Your task to perform on an android device: Clear all items from cart on amazon. Add logitech g pro to the cart on amazon, then select checkout. Image 0: 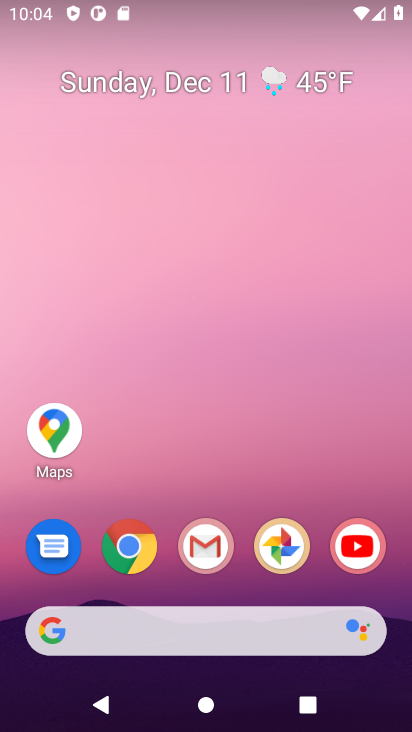
Step 0: click (132, 552)
Your task to perform on an android device: Clear all items from cart on amazon. Add logitech g pro to the cart on amazon, then select checkout. Image 1: 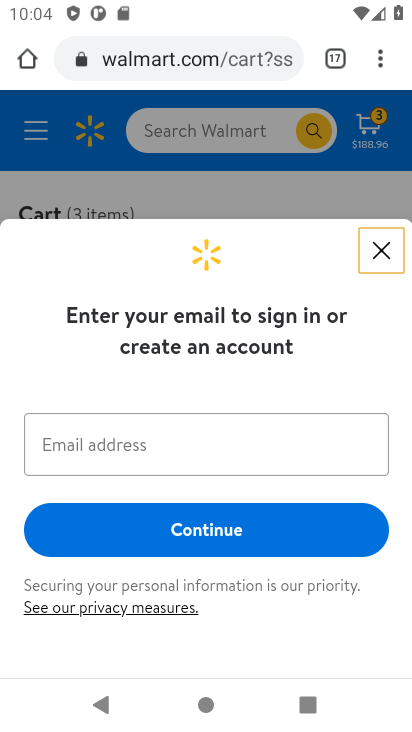
Step 1: click (148, 52)
Your task to perform on an android device: Clear all items from cart on amazon. Add logitech g pro to the cart on amazon, then select checkout. Image 2: 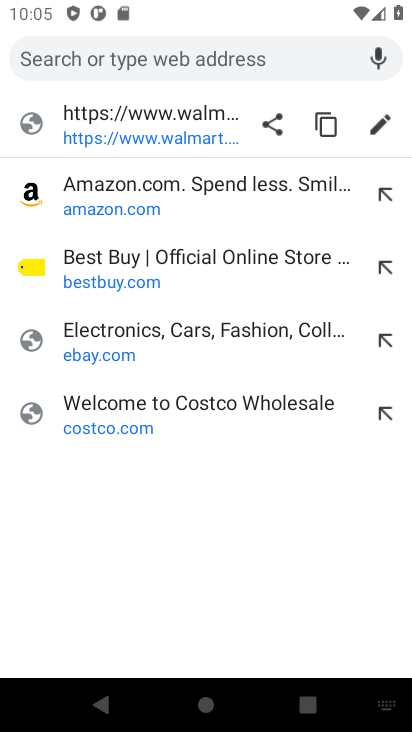
Step 2: click (90, 207)
Your task to perform on an android device: Clear all items from cart on amazon. Add logitech g pro to the cart on amazon, then select checkout. Image 3: 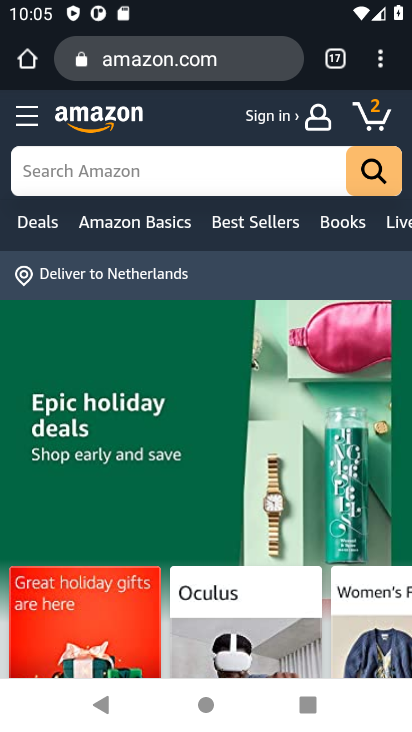
Step 3: click (378, 119)
Your task to perform on an android device: Clear all items from cart on amazon. Add logitech g pro to the cart on amazon, then select checkout. Image 4: 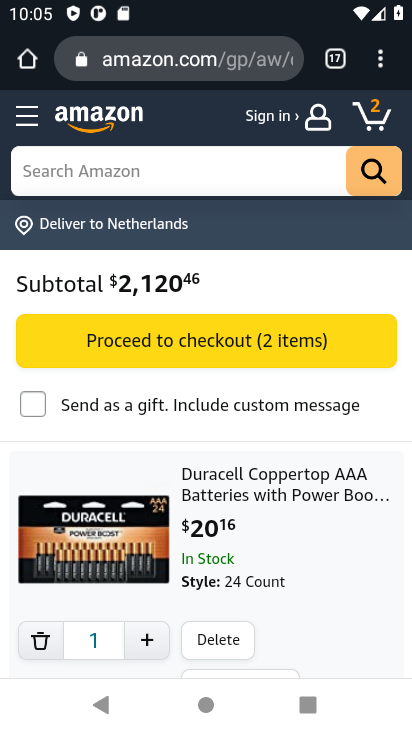
Step 4: click (214, 643)
Your task to perform on an android device: Clear all items from cart on amazon. Add logitech g pro to the cart on amazon, then select checkout. Image 5: 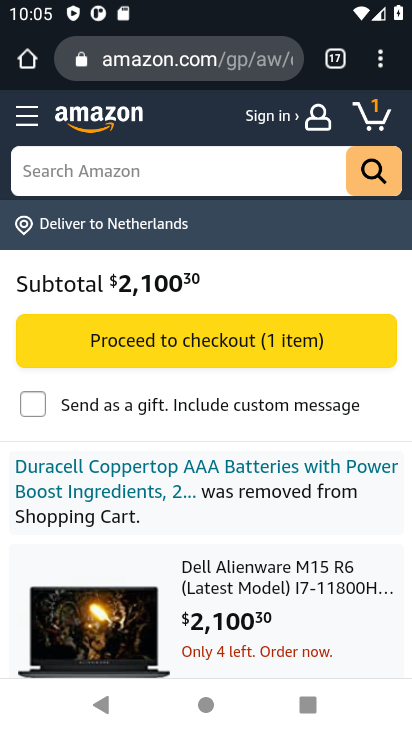
Step 5: drag from (214, 613) to (224, 438)
Your task to perform on an android device: Clear all items from cart on amazon. Add logitech g pro to the cart on amazon, then select checkout. Image 6: 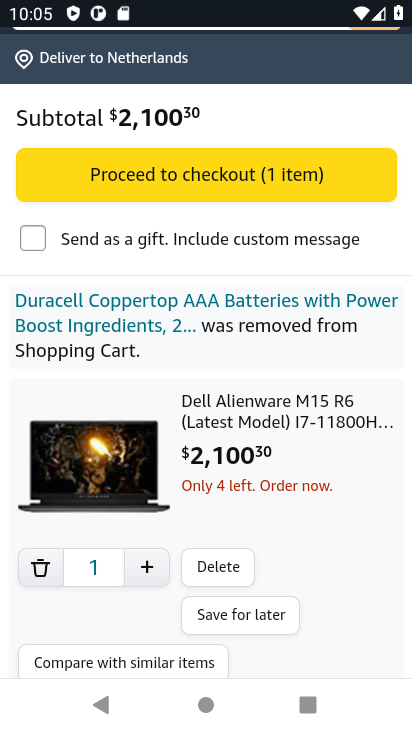
Step 6: click (216, 565)
Your task to perform on an android device: Clear all items from cart on amazon. Add logitech g pro to the cart on amazon, then select checkout. Image 7: 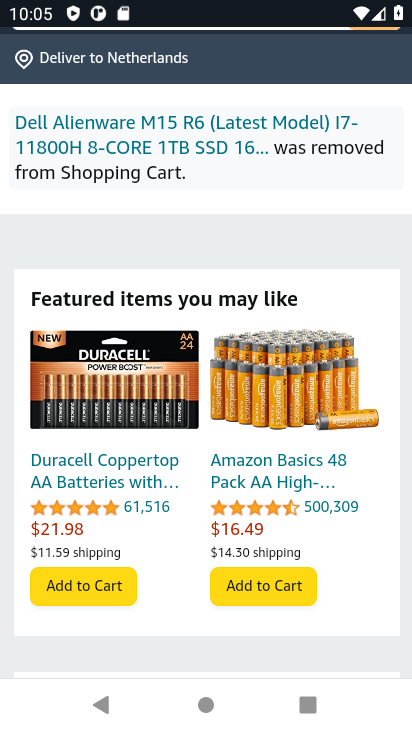
Step 7: drag from (208, 349) to (242, 557)
Your task to perform on an android device: Clear all items from cart on amazon. Add logitech g pro to the cart on amazon, then select checkout. Image 8: 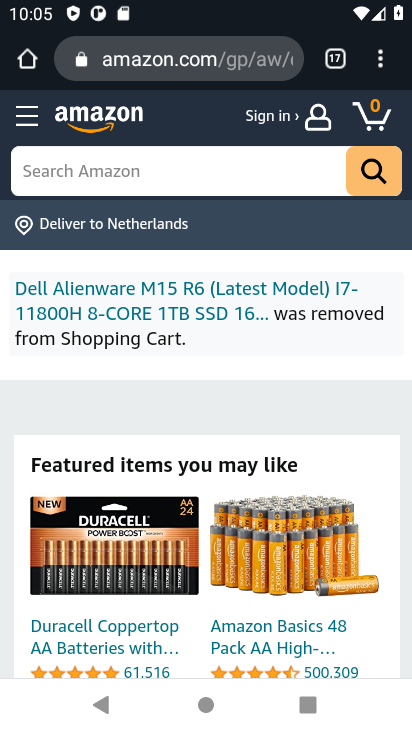
Step 8: click (107, 171)
Your task to perform on an android device: Clear all items from cart on amazon. Add logitech g pro to the cart on amazon, then select checkout. Image 9: 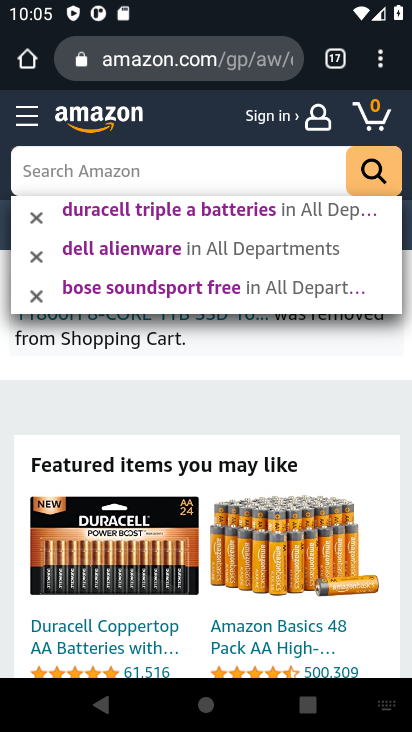
Step 9: type " logitech g pro"
Your task to perform on an android device: Clear all items from cart on amazon. Add logitech g pro to the cart on amazon, then select checkout. Image 10: 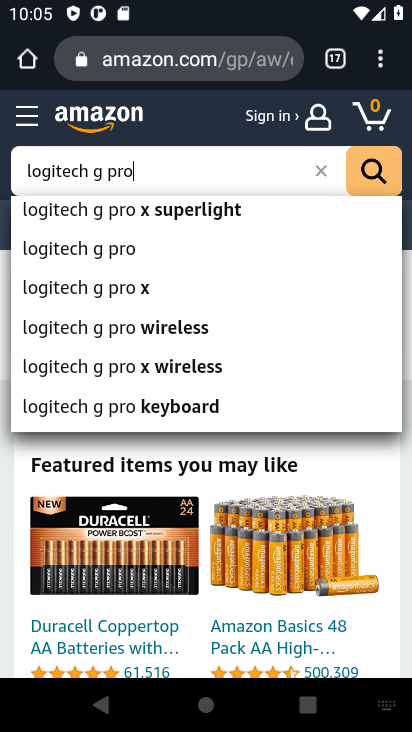
Step 10: click (87, 257)
Your task to perform on an android device: Clear all items from cart on amazon. Add logitech g pro to the cart on amazon, then select checkout. Image 11: 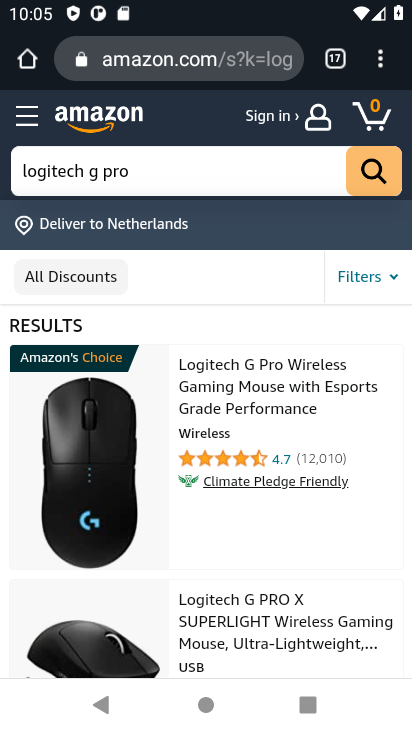
Step 11: drag from (201, 537) to (215, 381)
Your task to perform on an android device: Clear all items from cart on amazon. Add logitech g pro to the cart on amazon, then select checkout. Image 12: 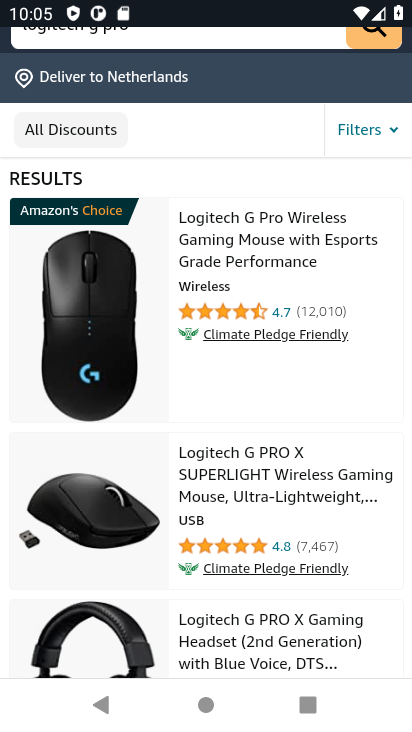
Step 12: drag from (217, 586) to (216, 375)
Your task to perform on an android device: Clear all items from cart on amazon. Add logitech g pro to the cart on amazon, then select checkout. Image 13: 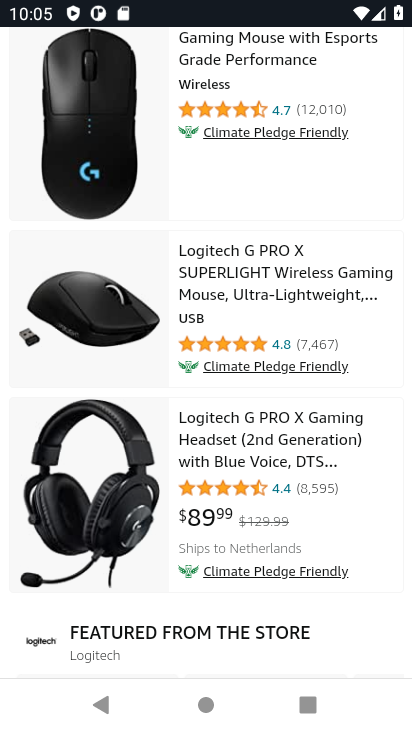
Step 13: click (254, 463)
Your task to perform on an android device: Clear all items from cart on amazon. Add logitech g pro to the cart on amazon, then select checkout. Image 14: 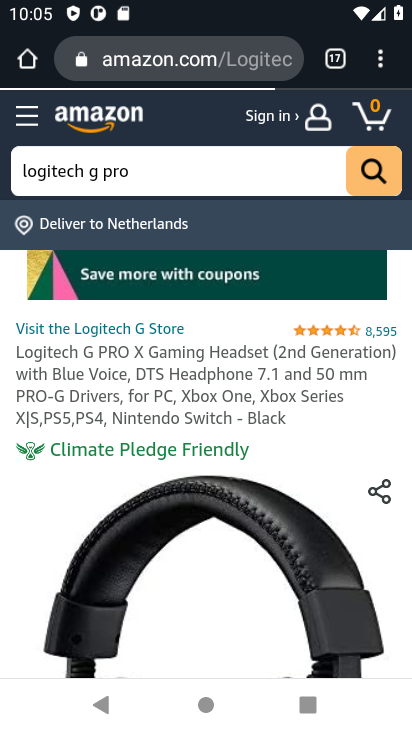
Step 14: drag from (228, 582) to (230, 250)
Your task to perform on an android device: Clear all items from cart on amazon. Add logitech g pro to the cart on amazon, then select checkout. Image 15: 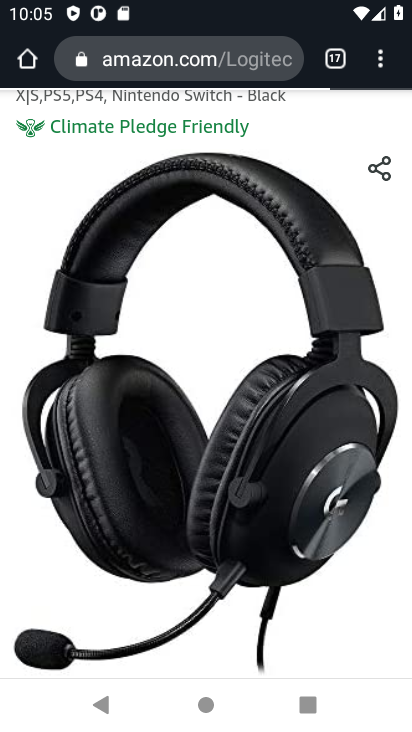
Step 15: drag from (227, 556) to (231, 191)
Your task to perform on an android device: Clear all items from cart on amazon. Add logitech g pro to the cart on amazon, then select checkout. Image 16: 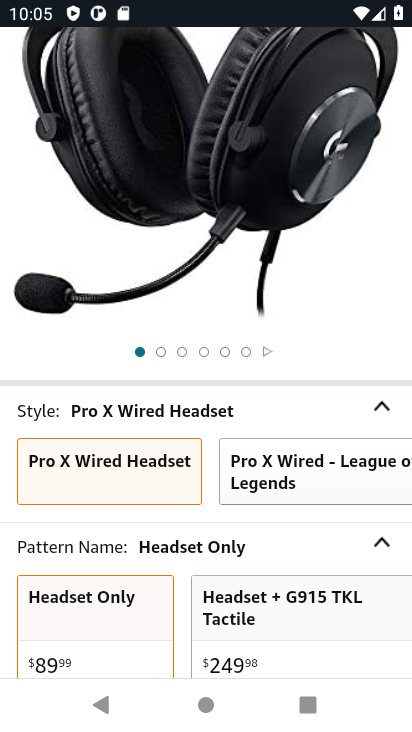
Step 16: drag from (223, 535) to (229, 158)
Your task to perform on an android device: Clear all items from cart on amazon. Add logitech g pro to the cart on amazon, then select checkout. Image 17: 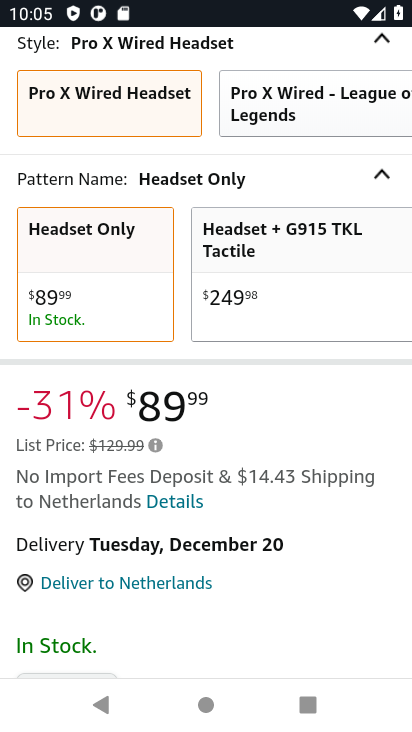
Step 17: drag from (186, 495) to (180, 217)
Your task to perform on an android device: Clear all items from cart on amazon. Add logitech g pro to the cart on amazon, then select checkout. Image 18: 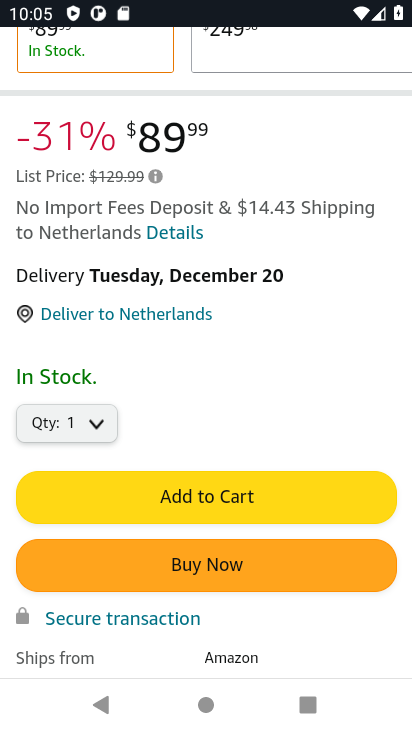
Step 18: click (171, 508)
Your task to perform on an android device: Clear all items from cart on amazon. Add logitech g pro to the cart on amazon, then select checkout. Image 19: 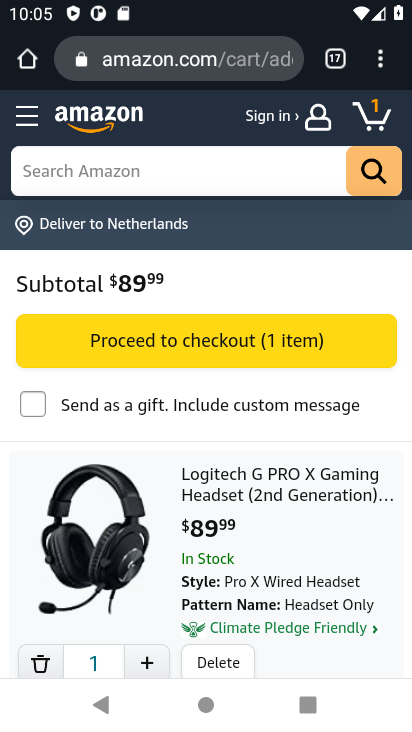
Step 19: click (170, 340)
Your task to perform on an android device: Clear all items from cart on amazon. Add logitech g pro to the cart on amazon, then select checkout. Image 20: 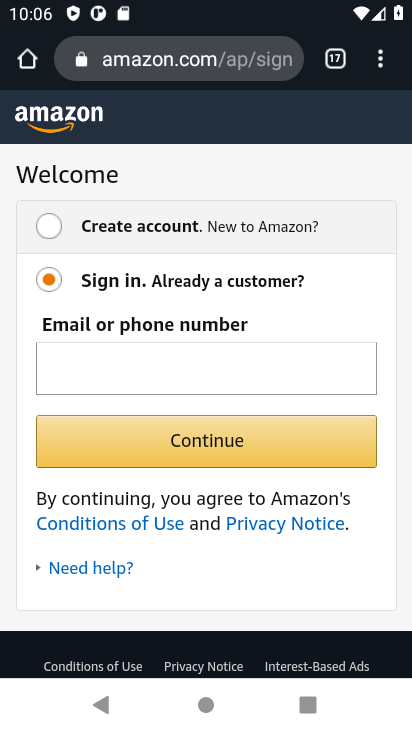
Step 20: task complete